Your task to perform on an android device: Open the calendar app, open the side menu, and click the "Day" option Image 0: 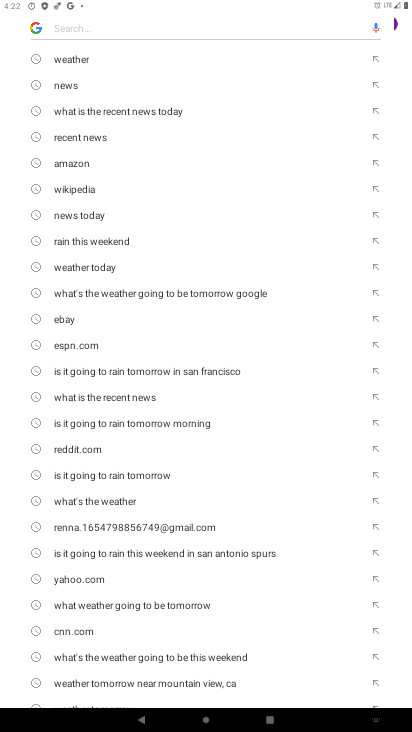
Step 0: press home button
Your task to perform on an android device: Open the calendar app, open the side menu, and click the "Day" option Image 1: 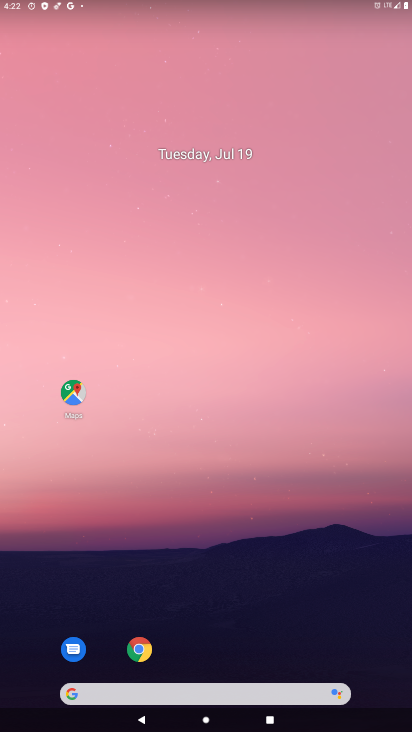
Step 1: drag from (276, 618) to (185, 74)
Your task to perform on an android device: Open the calendar app, open the side menu, and click the "Day" option Image 2: 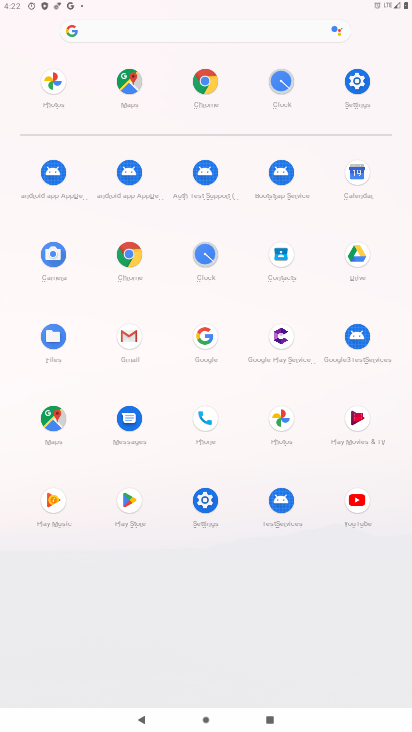
Step 2: click (359, 177)
Your task to perform on an android device: Open the calendar app, open the side menu, and click the "Day" option Image 3: 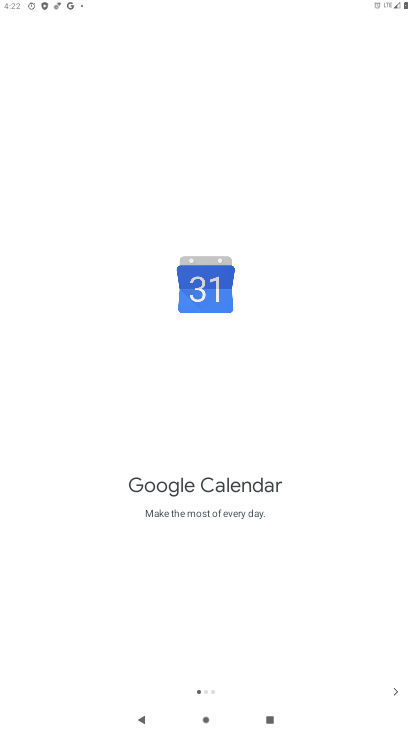
Step 3: click (394, 689)
Your task to perform on an android device: Open the calendar app, open the side menu, and click the "Day" option Image 4: 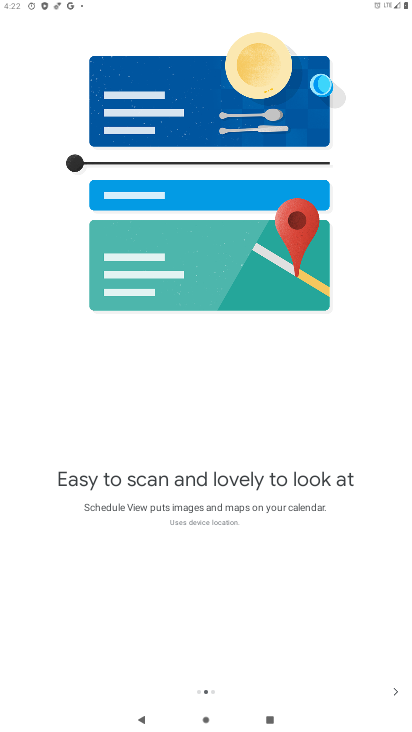
Step 4: click (394, 689)
Your task to perform on an android device: Open the calendar app, open the side menu, and click the "Day" option Image 5: 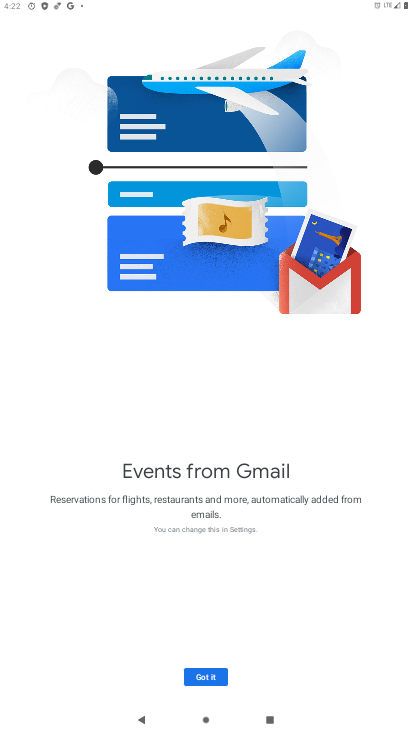
Step 5: click (209, 671)
Your task to perform on an android device: Open the calendar app, open the side menu, and click the "Day" option Image 6: 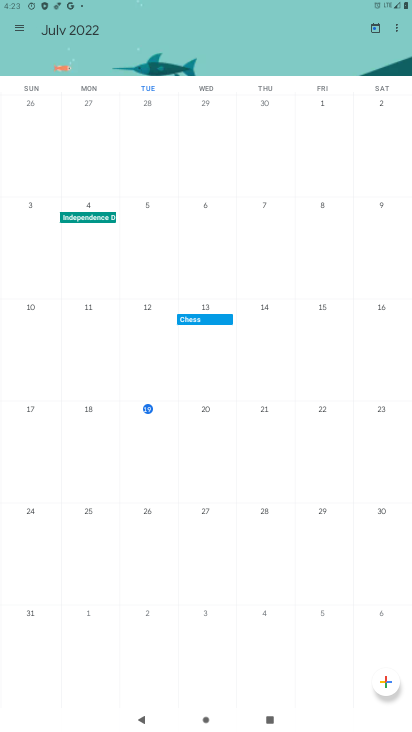
Step 6: click (21, 27)
Your task to perform on an android device: Open the calendar app, open the side menu, and click the "Day" option Image 7: 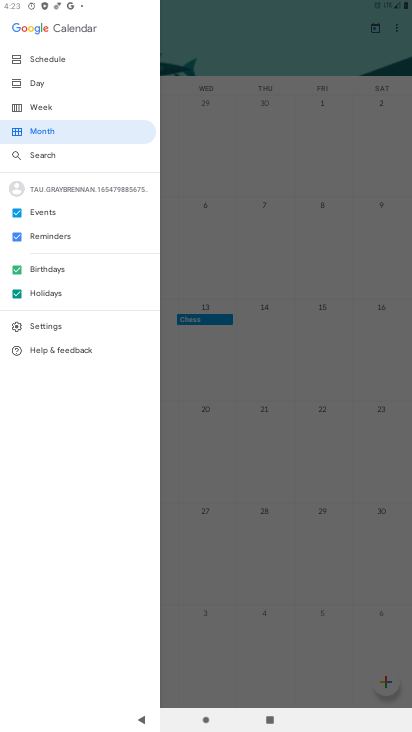
Step 7: click (54, 85)
Your task to perform on an android device: Open the calendar app, open the side menu, and click the "Day" option Image 8: 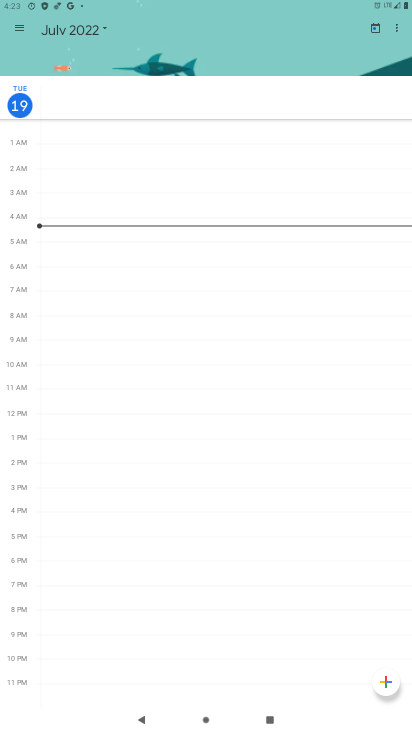
Step 8: task complete